Your task to perform on an android device: empty trash in google photos Image 0: 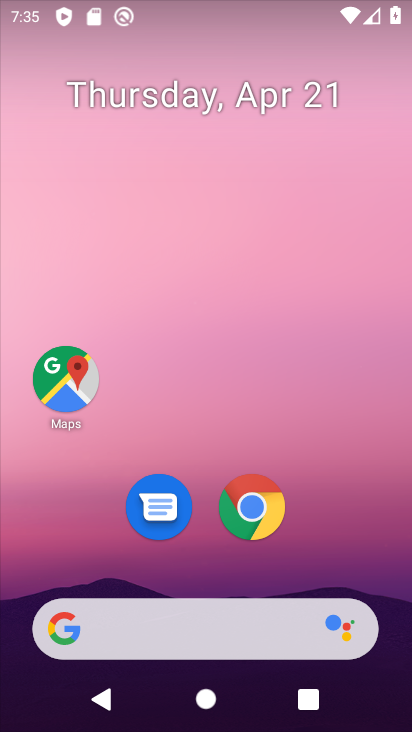
Step 0: drag from (340, 545) to (368, 118)
Your task to perform on an android device: empty trash in google photos Image 1: 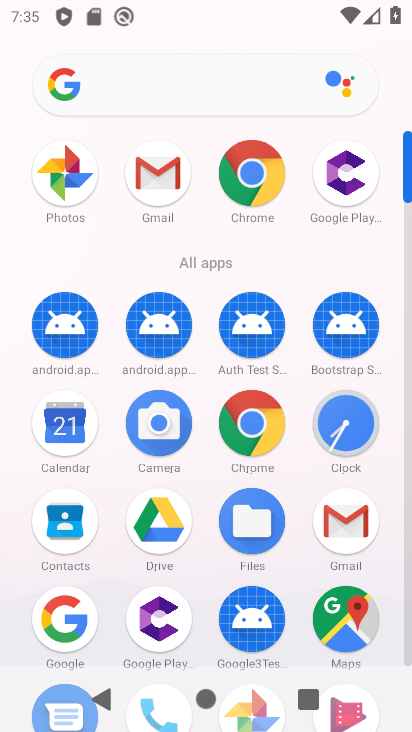
Step 1: drag from (284, 580) to (301, 279)
Your task to perform on an android device: empty trash in google photos Image 2: 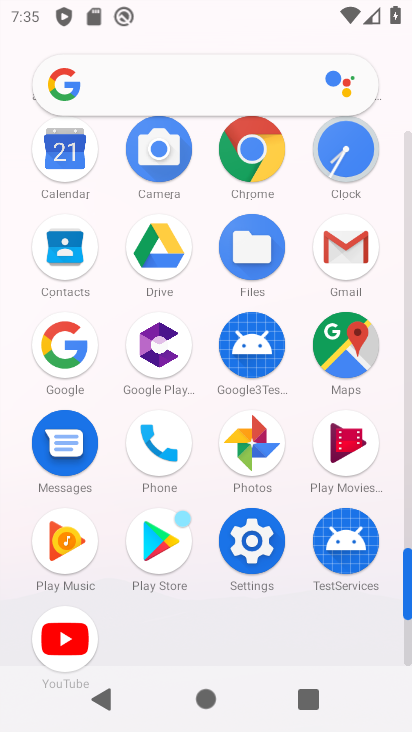
Step 2: click (257, 439)
Your task to perform on an android device: empty trash in google photos Image 3: 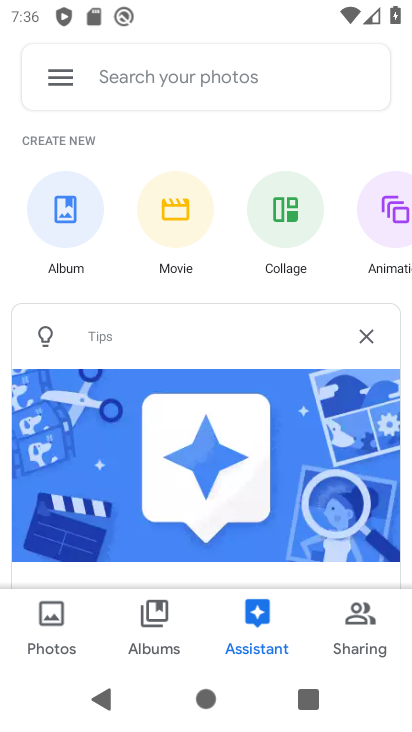
Step 3: click (55, 83)
Your task to perform on an android device: empty trash in google photos Image 4: 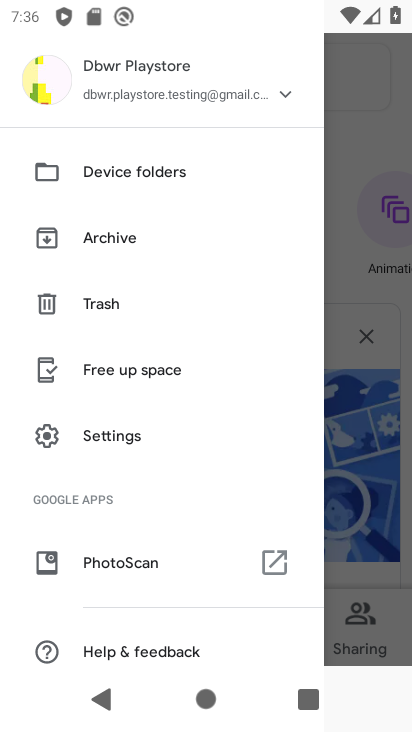
Step 4: drag from (224, 464) to (221, 321)
Your task to perform on an android device: empty trash in google photos Image 5: 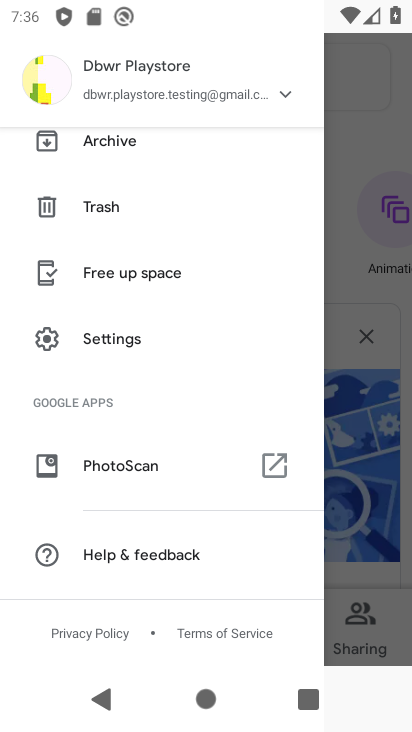
Step 5: drag from (218, 483) to (225, 241)
Your task to perform on an android device: empty trash in google photos Image 6: 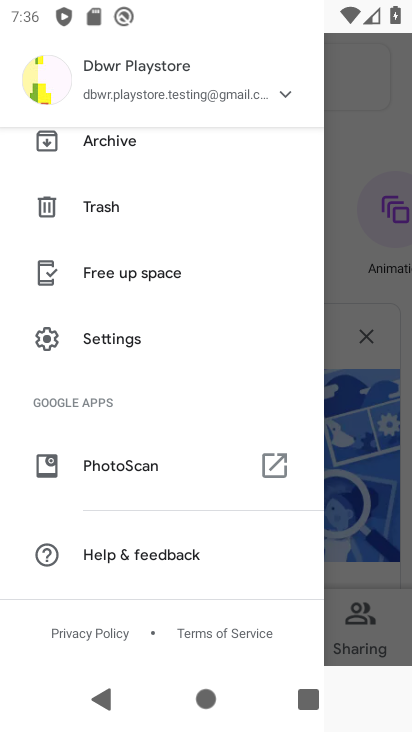
Step 6: drag from (225, 243) to (226, 390)
Your task to perform on an android device: empty trash in google photos Image 7: 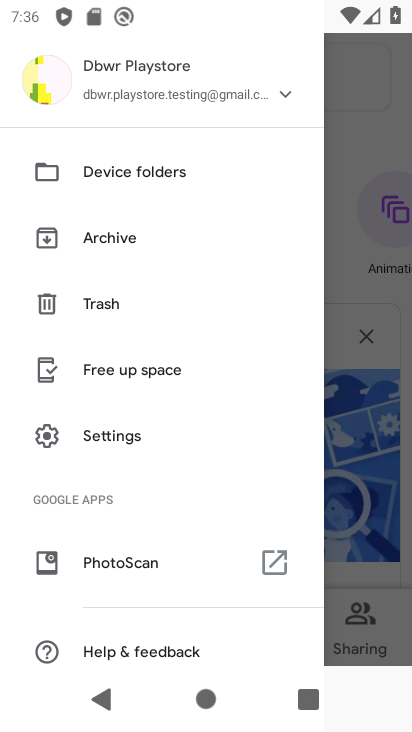
Step 7: drag from (230, 242) to (228, 432)
Your task to perform on an android device: empty trash in google photos Image 8: 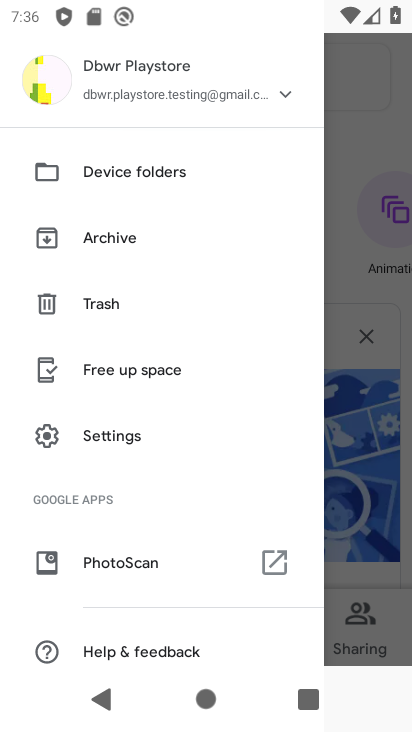
Step 8: click (113, 299)
Your task to perform on an android device: empty trash in google photos Image 9: 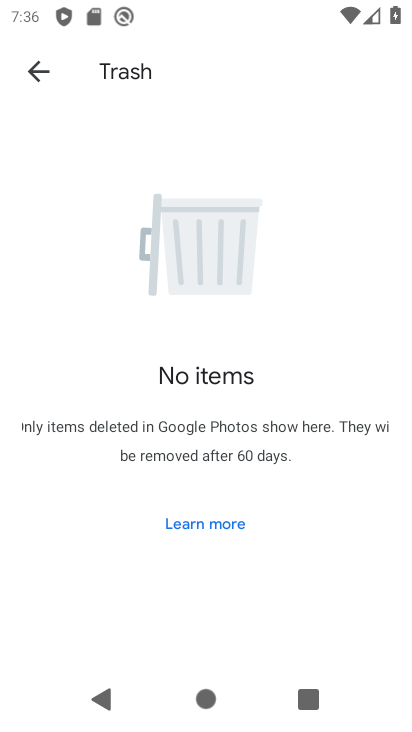
Step 9: task complete